Your task to perform on an android device: read, delete, or share a saved page in the chrome app Image 0: 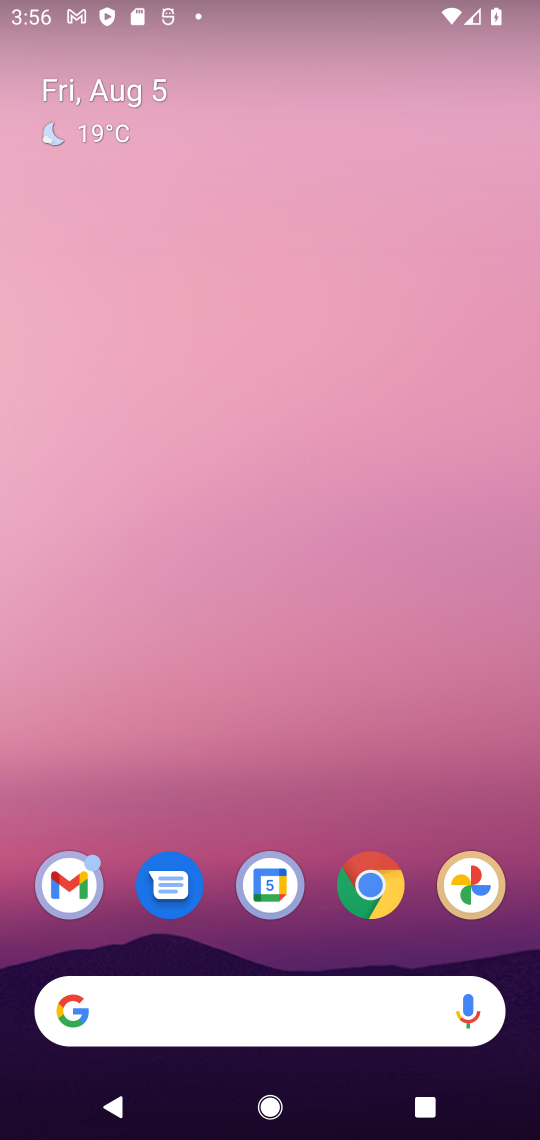
Step 0: click (371, 888)
Your task to perform on an android device: read, delete, or share a saved page in the chrome app Image 1: 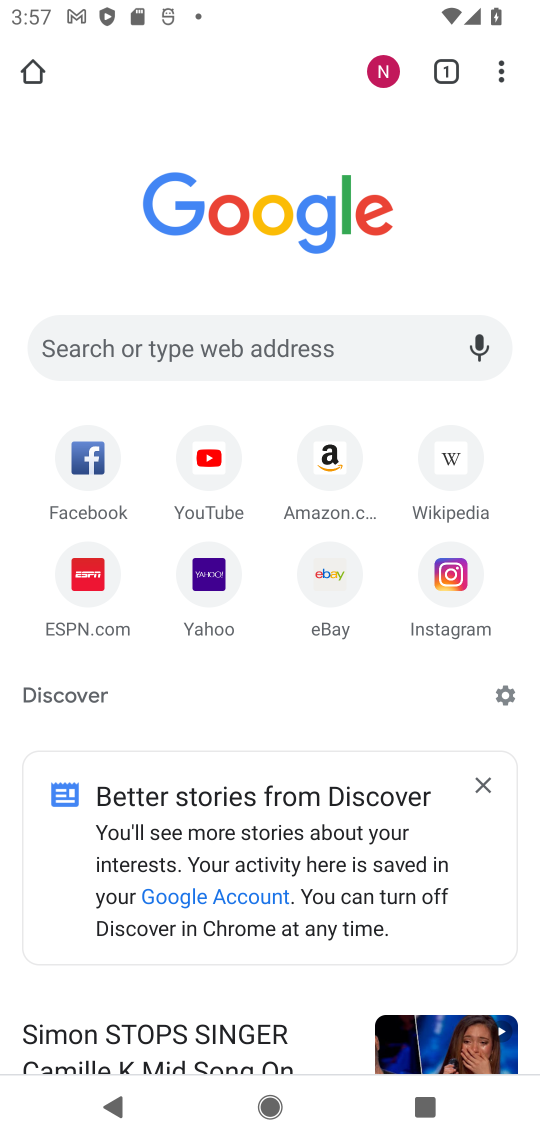
Step 1: click (501, 78)
Your task to perform on an android device: read, delete, or share a saved page in the chrome app Image 2: 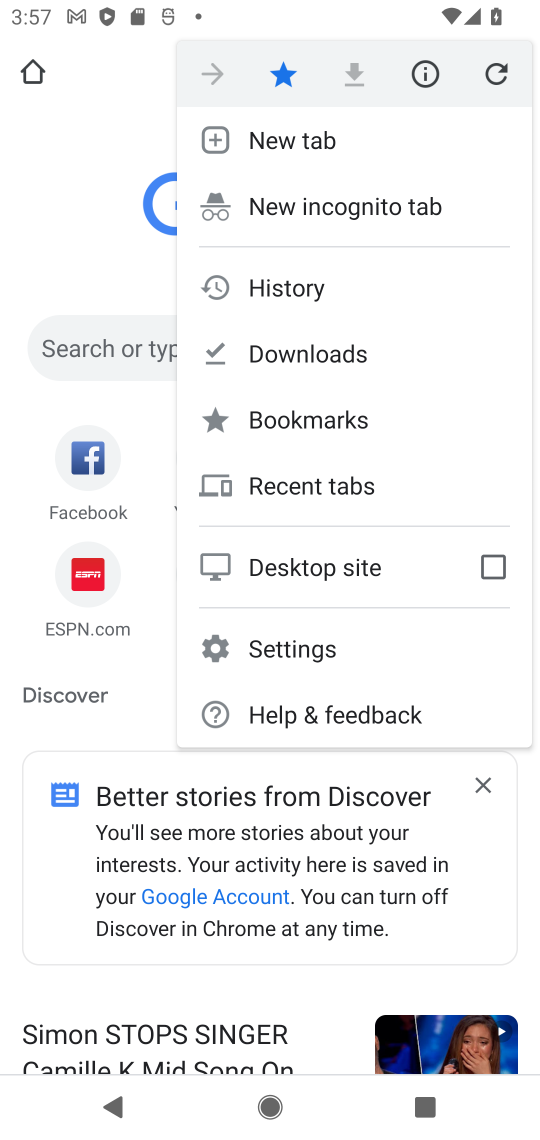
Step 2: click (307, 348)
Your task to perform on an android device: read, delete, or share a saved page in the chrome app Image 3: 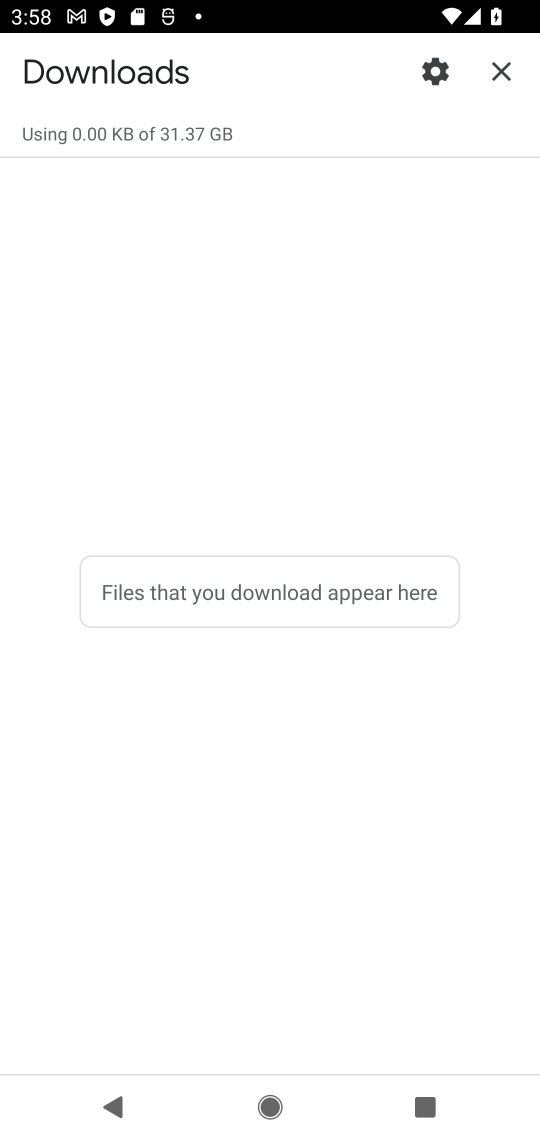
Step 3: task complete